Your task to perform on an android device: turn off sleep mode Image 0: 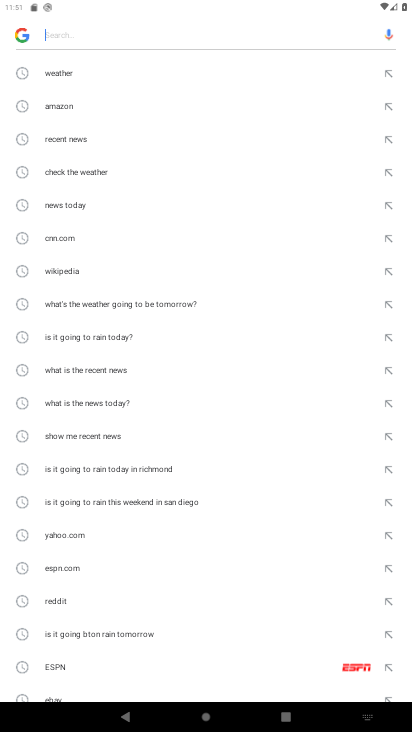
Step 0: press home button
Your task to perform on an android device: turn off sleep mode Image 1: 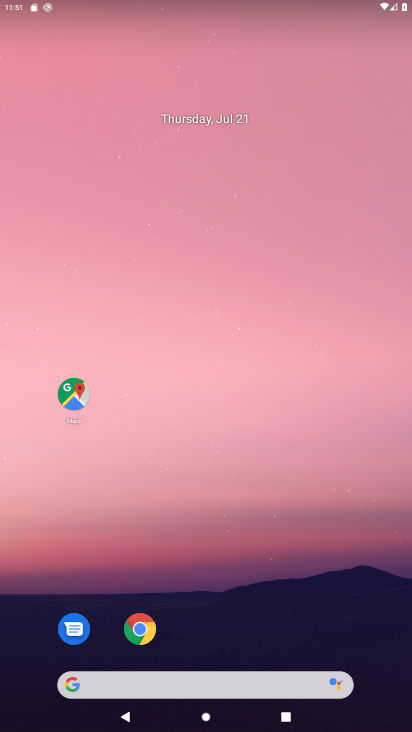
Step 1: drag from (165, 541) to (178, 307)
Your task to perform on an android device: turn off sleep mode Image 2: 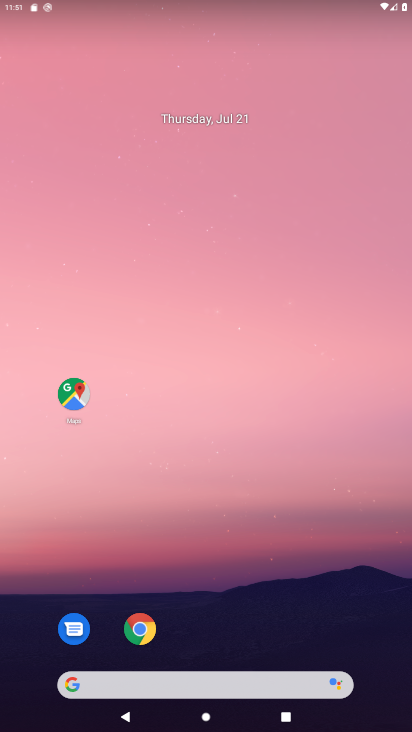
Step 2: drag from (183, 617) to (171, 338)
Your task to perform on an android device: turn off sleep mode Image 3: 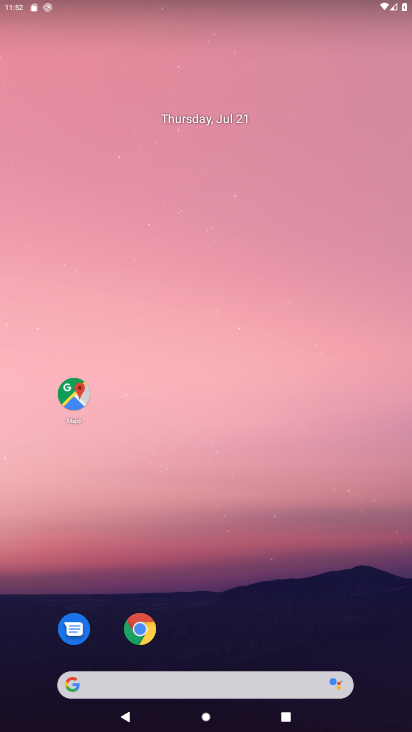
Step 3: drag from (208, 642) to (280, 166)
Your task to perform on an android device: turn off sleep mode Image 4: 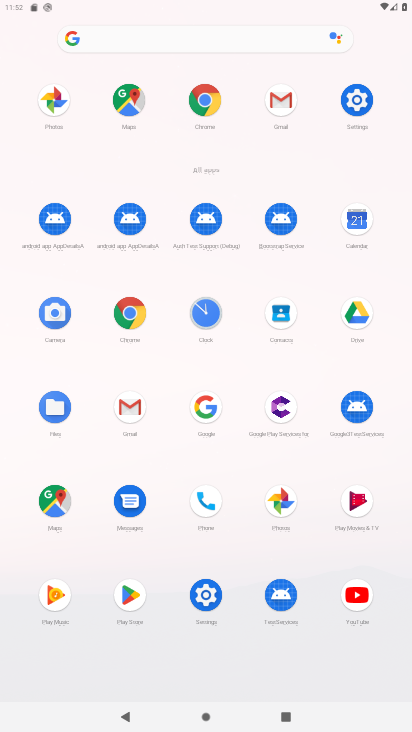
Step 4: click (205, 606)
Your task to perform on an android device: turn off sleep mode Image 5: 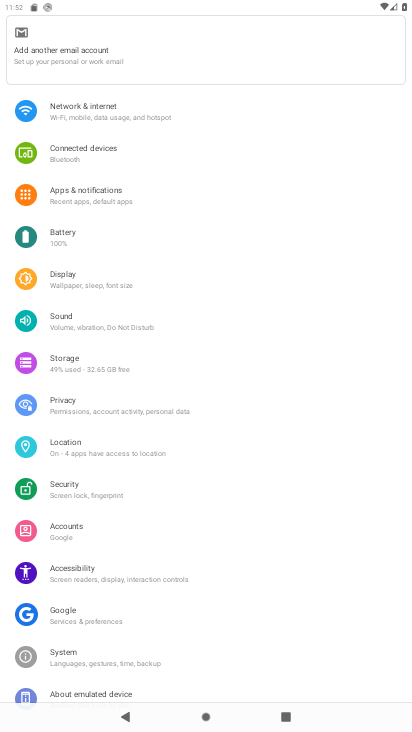
Step 5: drag from (180, 551) to (180, 622)
Your task to perform on an android device: turn off sleep mode Image 6: 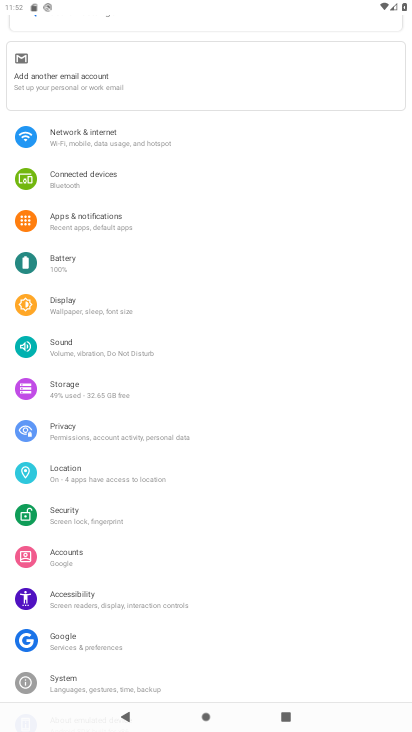
Step 6: drag from (200, 189) to (198, 630)
Your task to perform on an android device: turn off sleep mode Image 7: 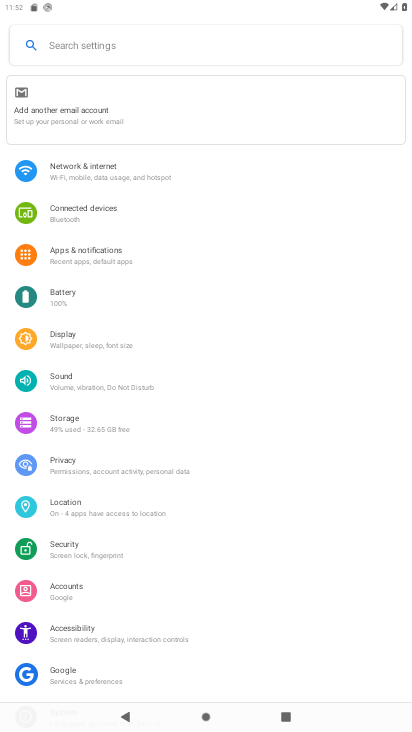
Step 7: click (186, 35)
Your task to perform on an android device: turn off sleep mode Image 8: 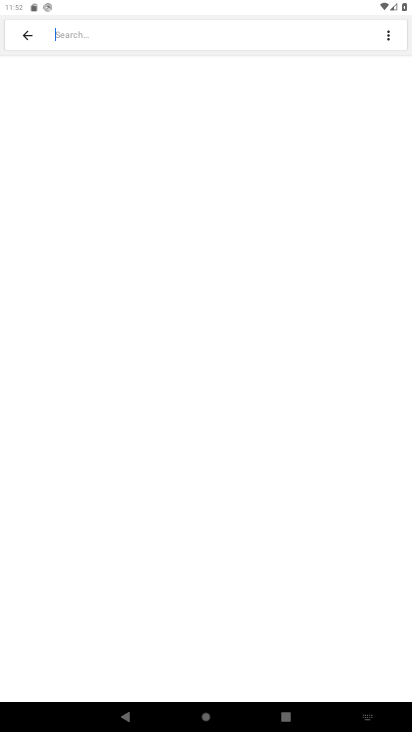
Step 8: type "sleep mode"
Your task to perform on an android device: turn off sleep mode Image 9: 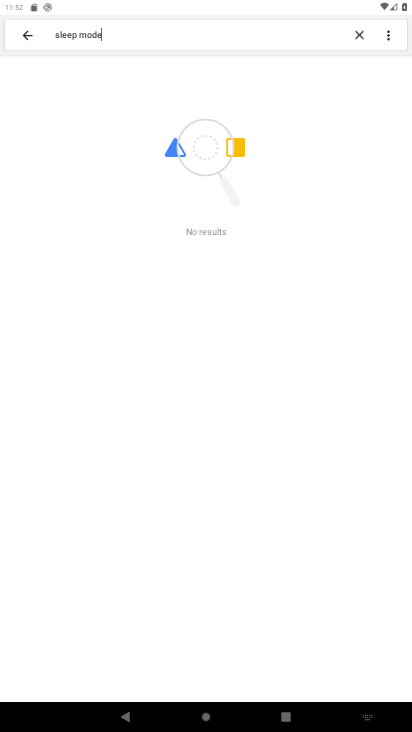
Step 9: click (154, 95)
Your task to perform on an android device: turn off sleep mode Image 10: 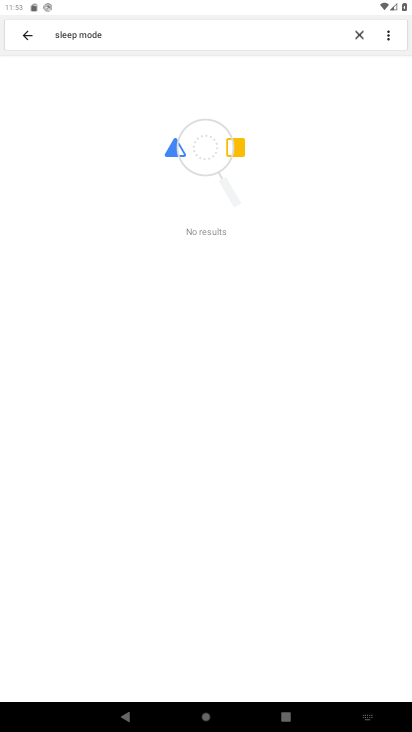
Step 10: task complete